Your task to perform on an android device: change timer sound Image 0: 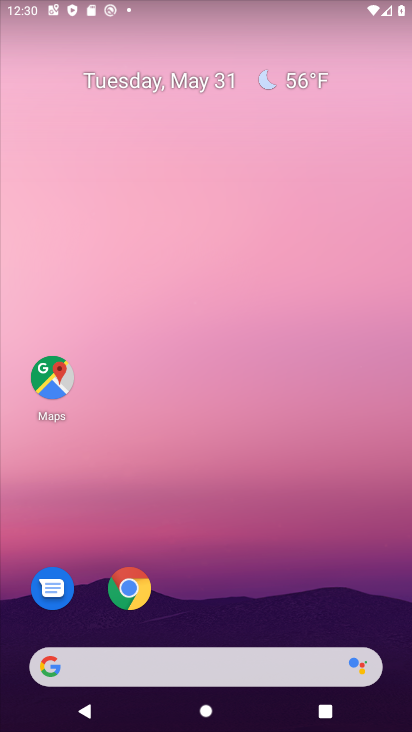
Step 0: drag from (223, 600) to (270, 52)
Your task to perform on an android device: change timer sound Image 1: 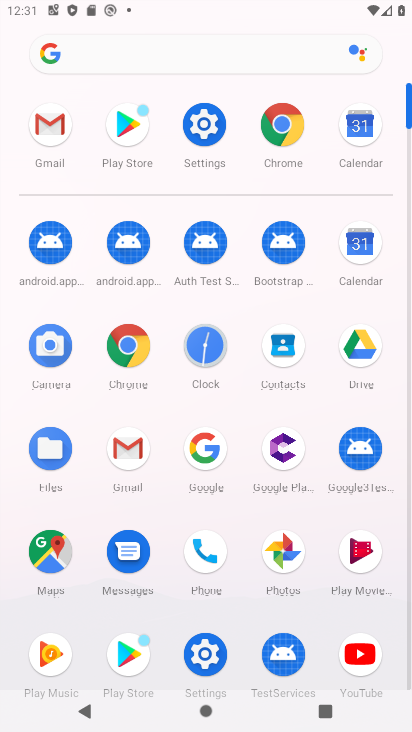
Step 1: click (210, 350)
Your task to perform on an android device: change timer sound Image 2: 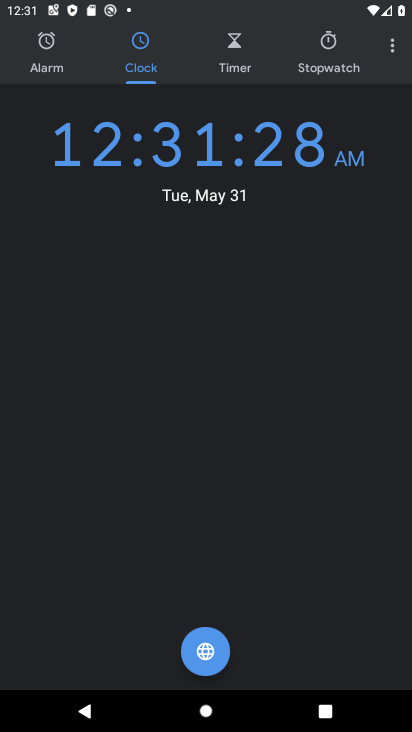
Step 2: click (396, 48)
Your task to perform on an android device: change timer sound Image 3: 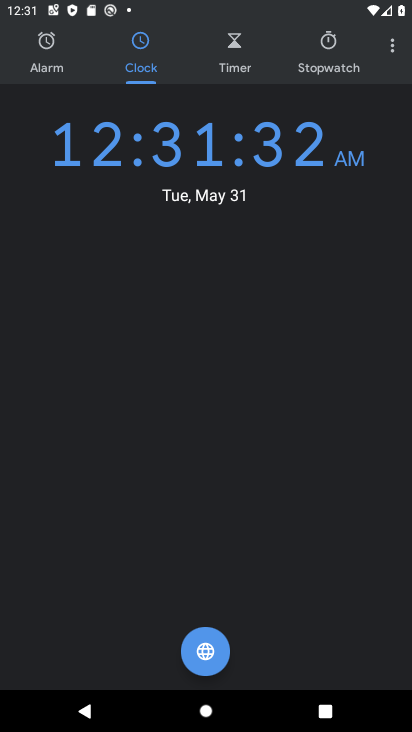
Step 3: click (390, 55)
Your task to perform on an android device: change timer sound Image 4: 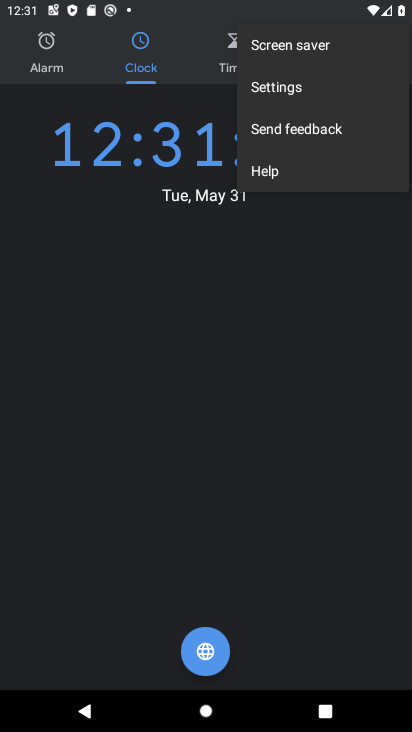
Step 4: click (319, 92)
Your task to perform on an android device: change timer sound Image 5: 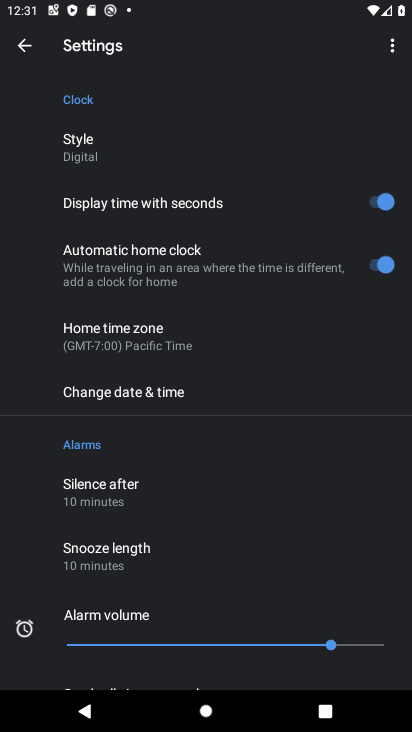
Step 5: drag from (153, 563) to (139, 339)
Your task to perform on an android device: change timer sound Image 6: 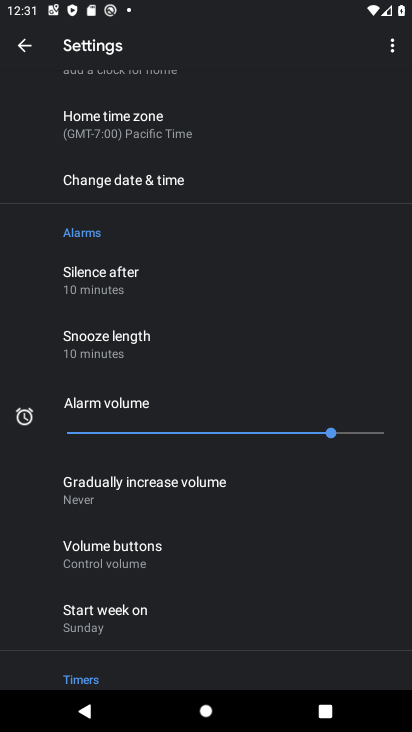
Step 6: drag from (158, 600) to (169, 371)
Your task to perform on an android device: change timer sound Image 7: 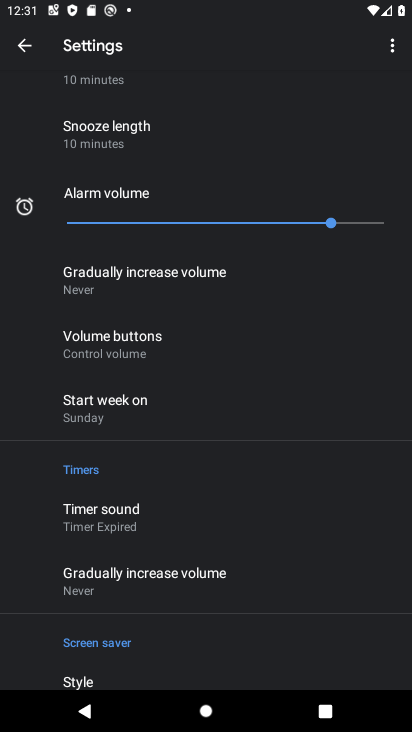
Step 7: drag from (192, 582) to (195, 331)
Your task to perform on an android device: change timer sound Image 8: 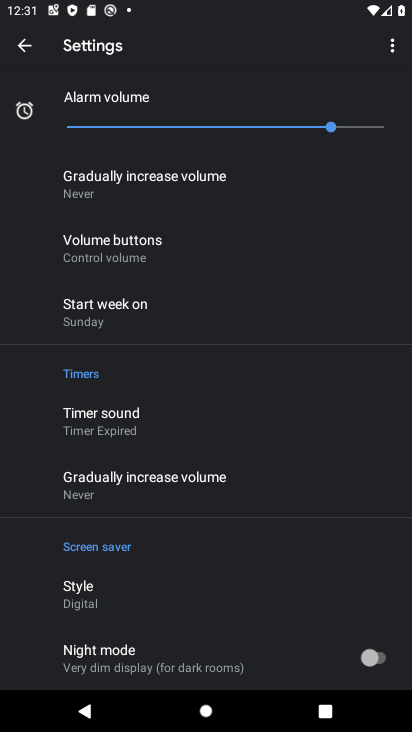
Step 8: drag from (159, 563) to (170, 289)
Your task to perform on an android device: change timer sound Image 9: 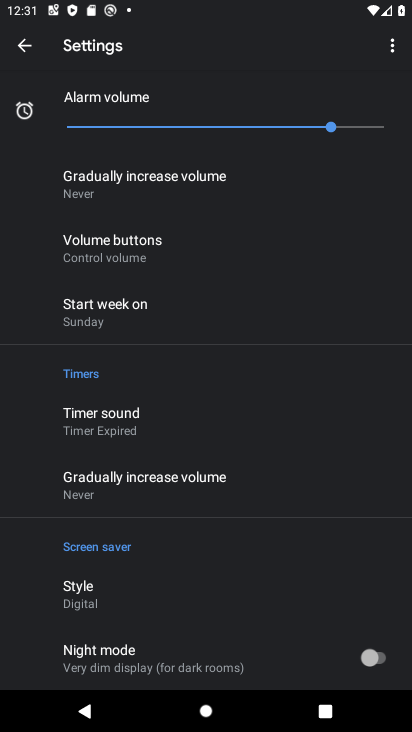
Step 9: click (116, 423)
Your task to perform on an android device: change timer sound Image 10: 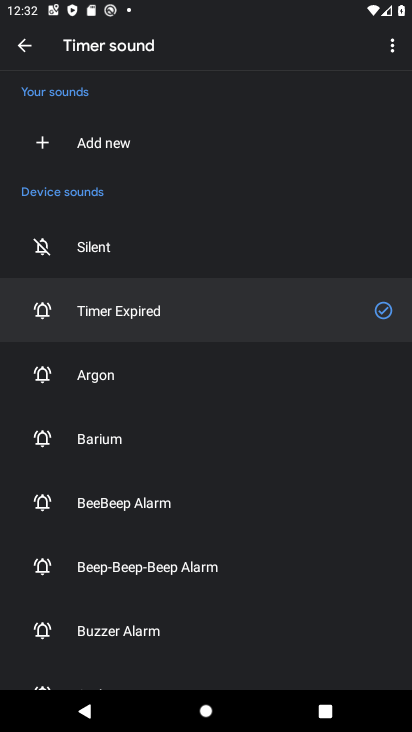
Step 10: click (104, 384)
Your task to perform on an android device: change timer sound Image 11: 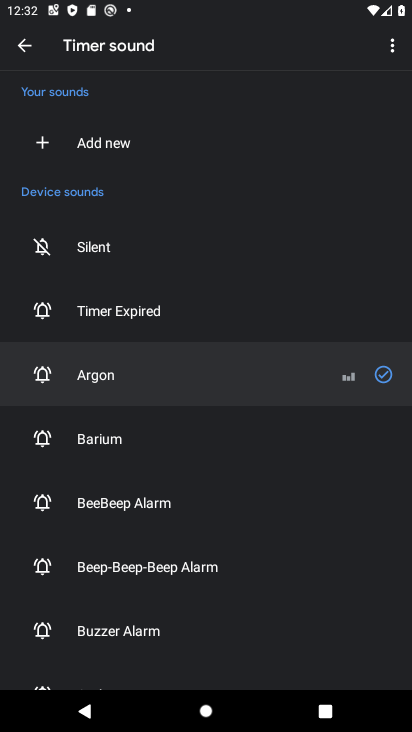
Step 11: task complete